Your task to perform on an android device: Go to Maps Image 0: 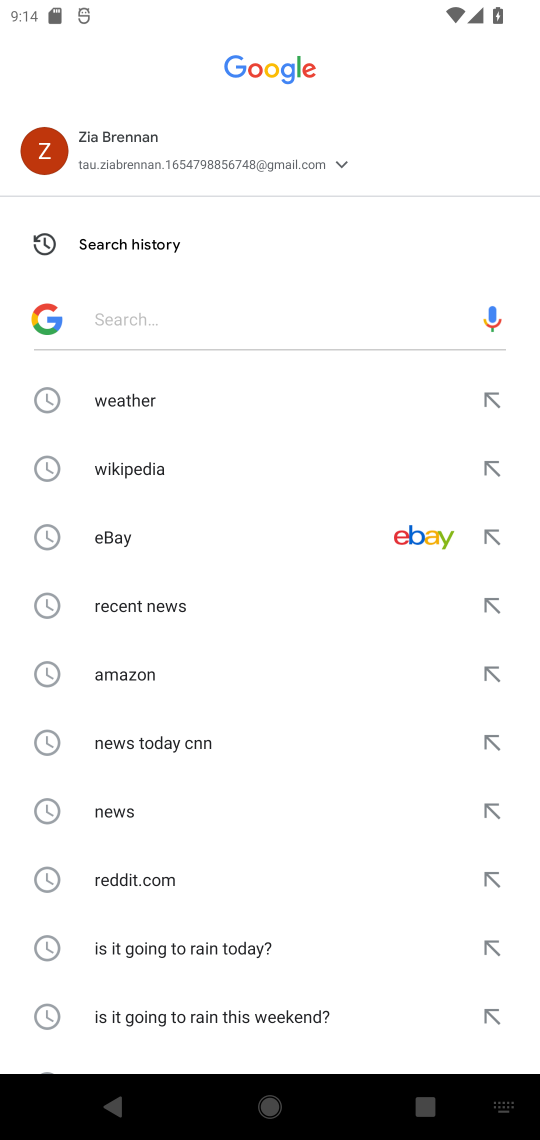
Step 0: press home button
Your task to perform on an android device: Go to Maps Image 1: 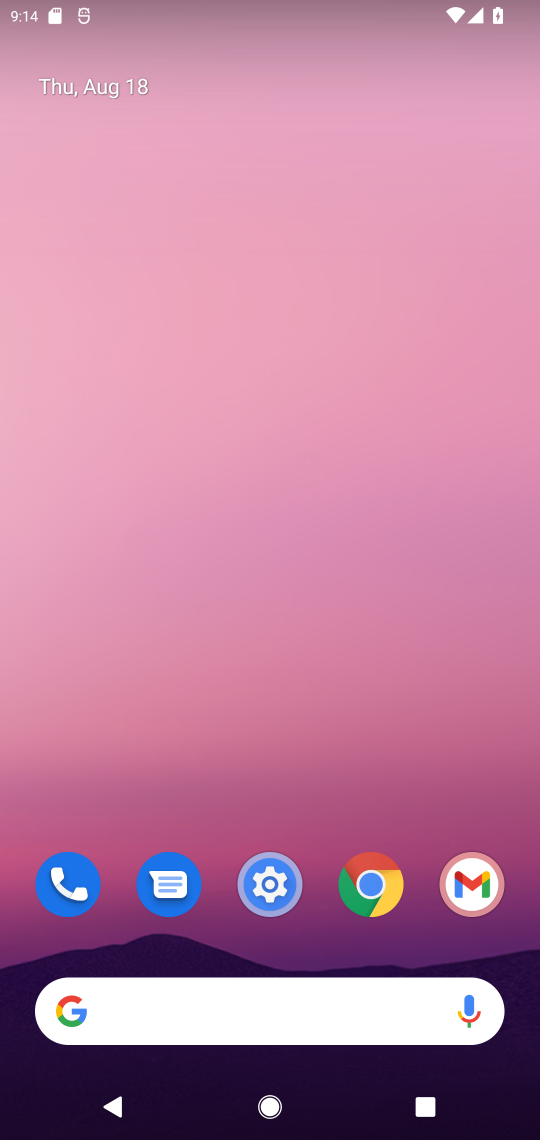
Step 1: drag from (253, 949) to (281, 18)
Your task to perform on an android device: Go to Maps Image 2: 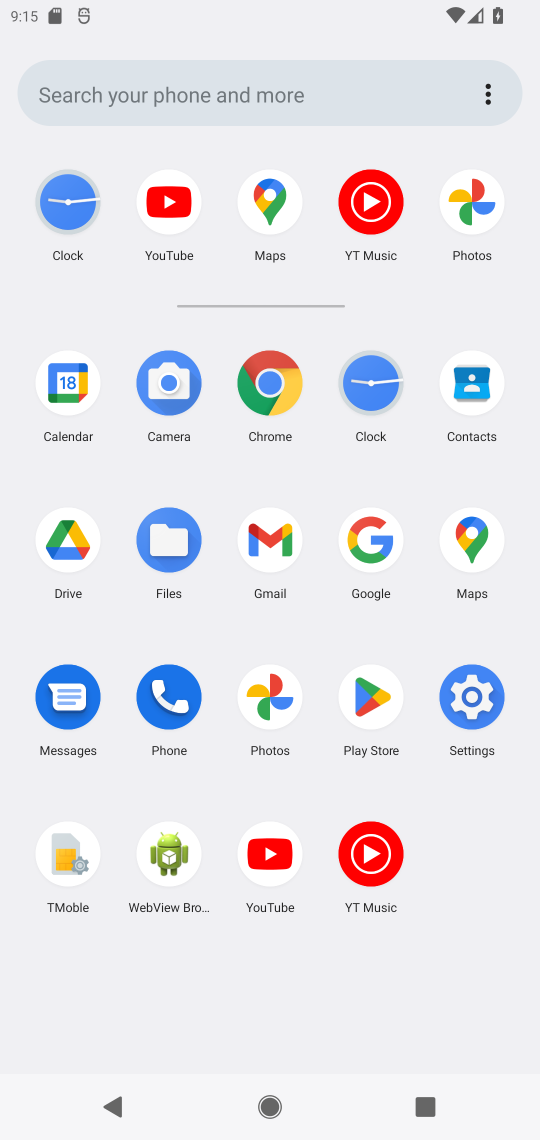
Step 2: click (260, 218)
Your task to perform on an android device: Go to Maps Image 3: 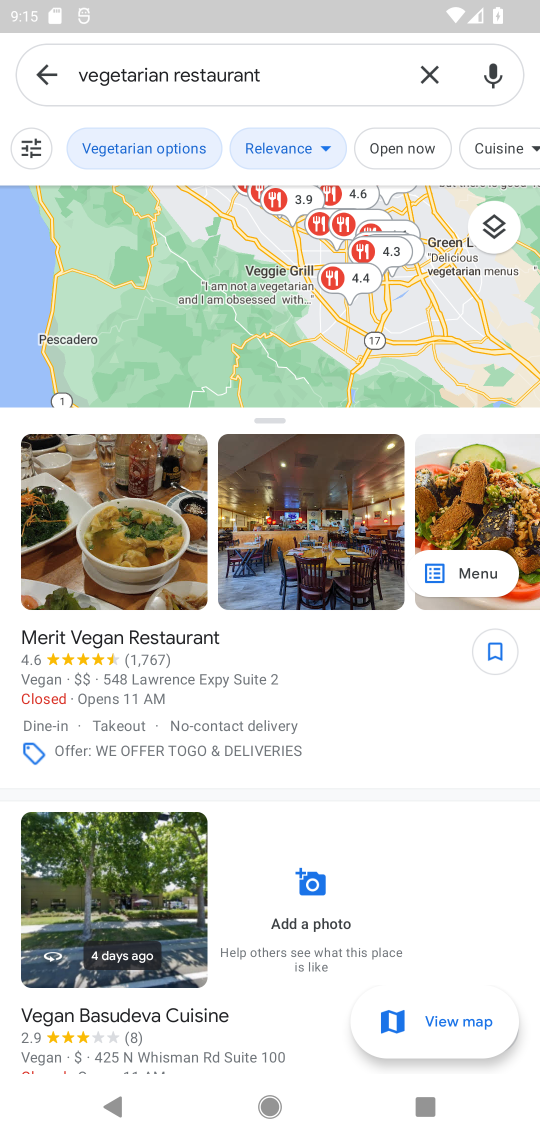
Step 3: task complete